Your task to perform on an android device: Open Google Chrome and click the shortcut for Amazon.com Image 0: 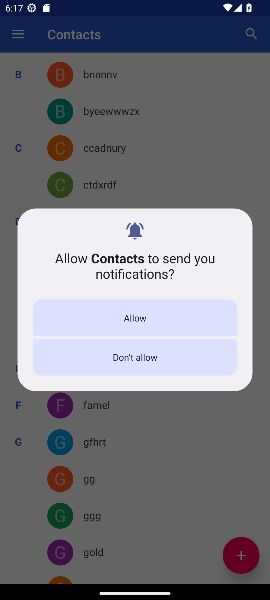
Step 0: press home button
Your task to perform on an android device: Open Google Chrome and click the shortcut for Amazon.com Image 1: 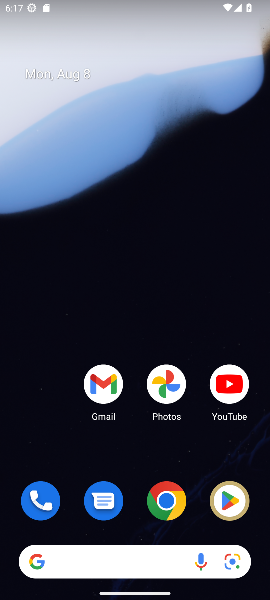
Step 1: click (171, 504)
Your task to perform on an android device: Open Google Chrome and click the shortcut for Amazon.com Image 2: 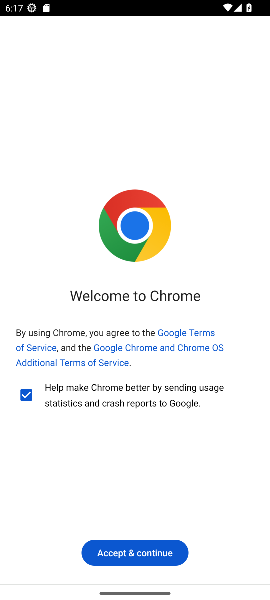
Step 2: click (133, 545)
Your task to perform on an android device: Open Google Chrome and click the shortcut for Amazon.com Image 3: 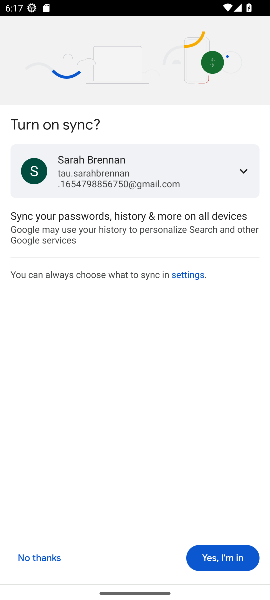
Step 3: click (234, 561)
Your task to perform on an android device: Open Google Chrome and click the shortcut for Amazon.com Image 4: 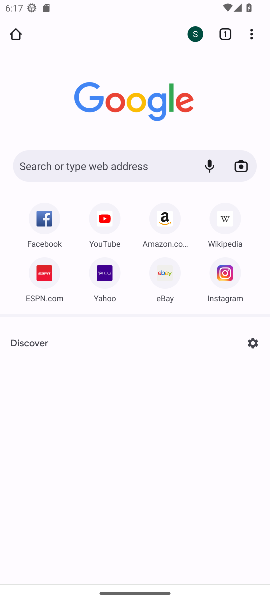
Step 4: click (168, 224)
Your task to perform on an android device: Open Google Chrome and click the shortcut for Amazon.com Image 5: 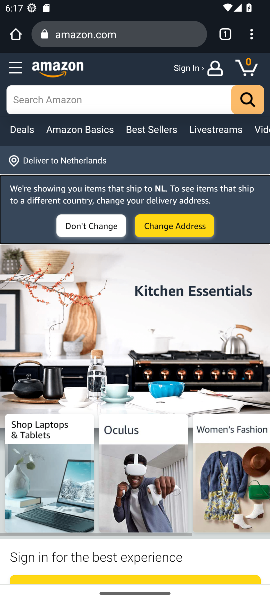
Step 5: task complete